Your task to perform on an android device: turn on location history Image 0: 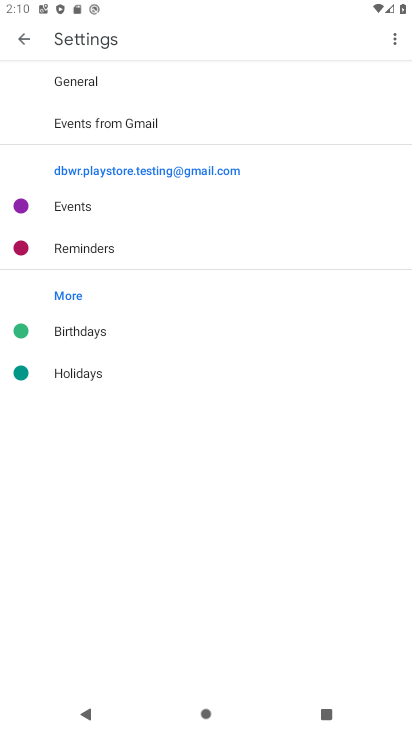
Step 0: press home button
Your task to perform on an android device: turn on location history Image 1: 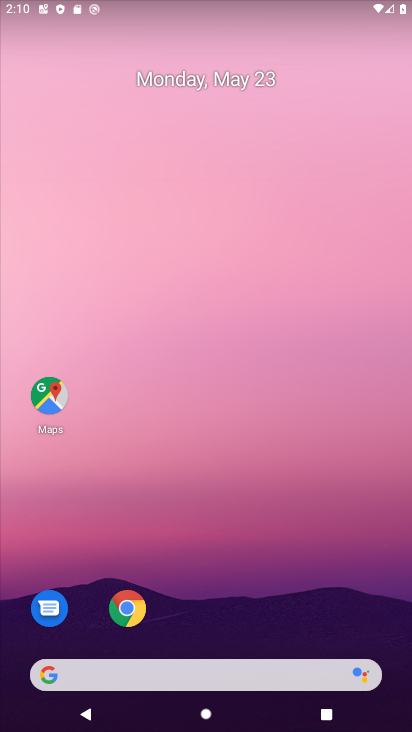
Step 1: drag from (204, 639) to (167, 126)
Your task to perform on an android device: turn on location history Image 2: 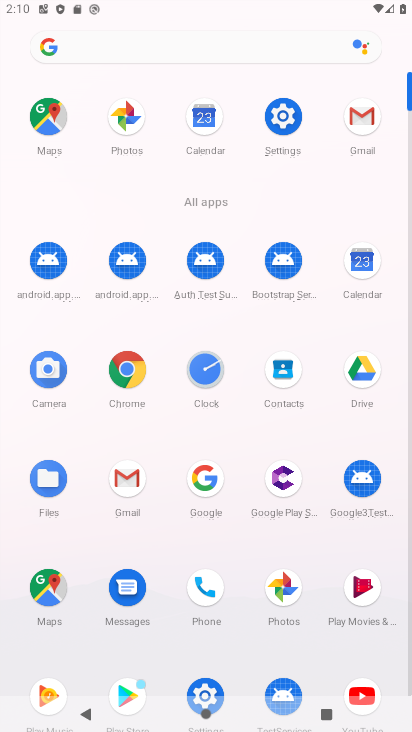
Step 2: click (284, 117)
Your task to perform on an android device: turn on location history Image 3: 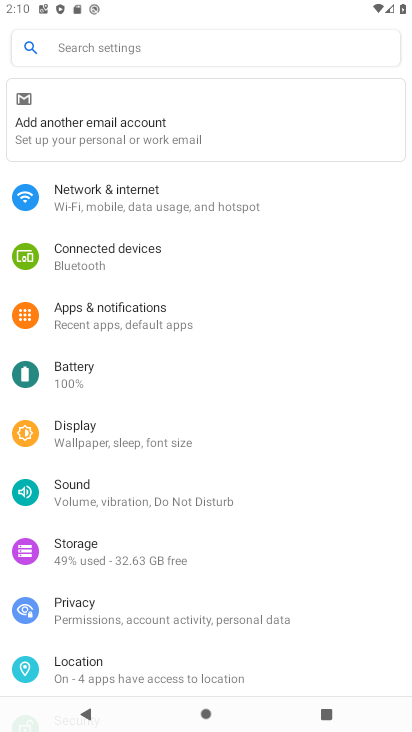
Step 3: drag from (220, 625) to (206, 252)
Your task to perform on an android device: turn on location history Image 4: 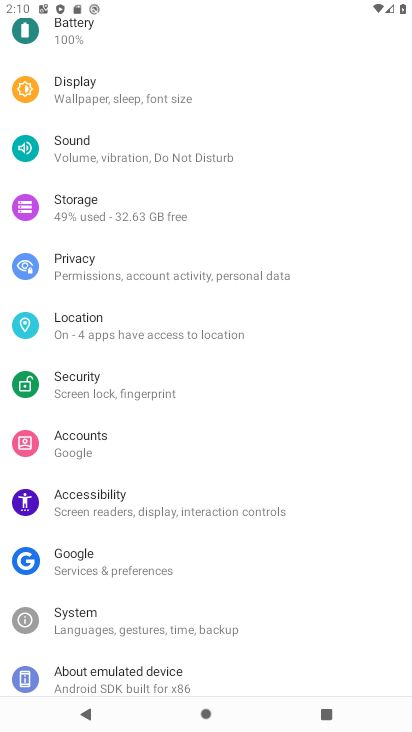
Step 4: click (59, 327)
Your task to perform on an android device: turn on location history Image 5: 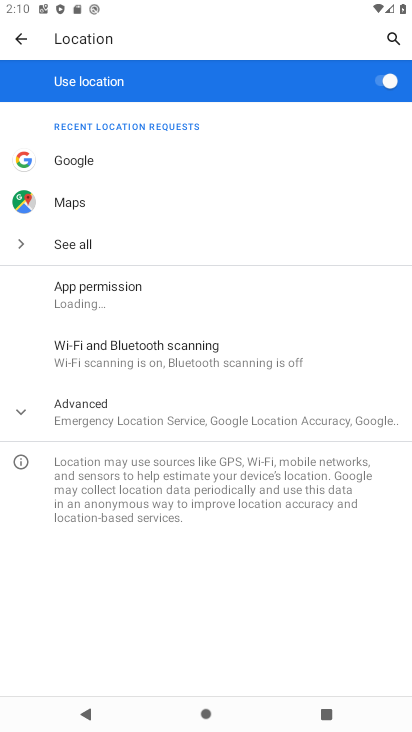
Step 5: click (51, 411)
Your task to perform on an android device: turn on location history Image 6: 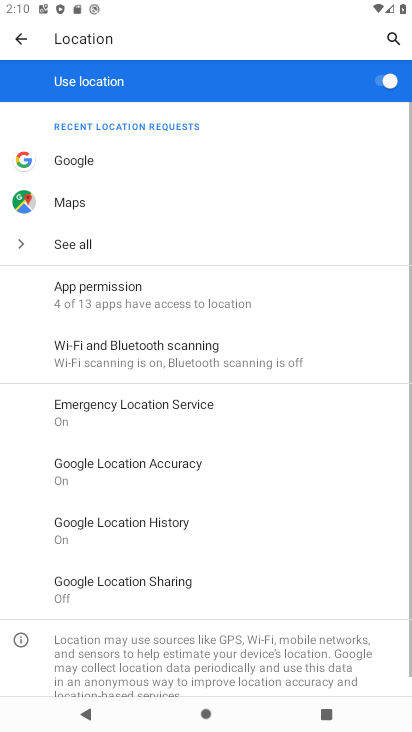
Step 6: click (131, 522)
Your task to perform on an android device: turn on location history Image 7: 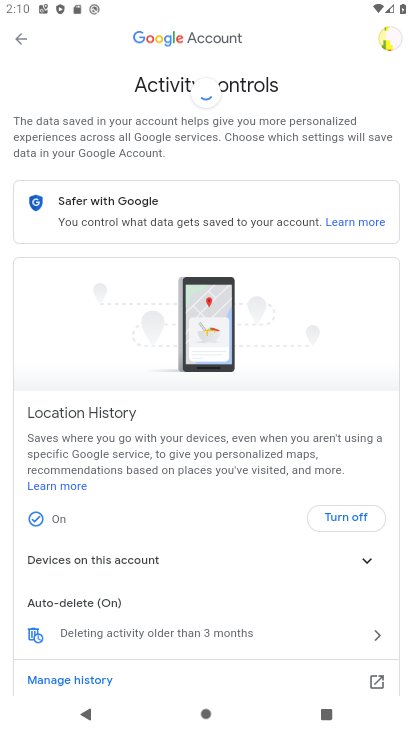
Step 7: task complete